Your task to perform on an android device: check out phone information Image 0: 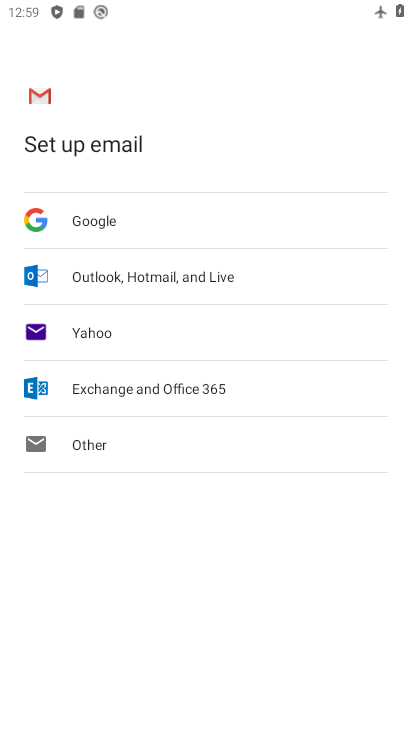
Step 0: press home button
Your task to perform on an android device: check out phone information Image 1: 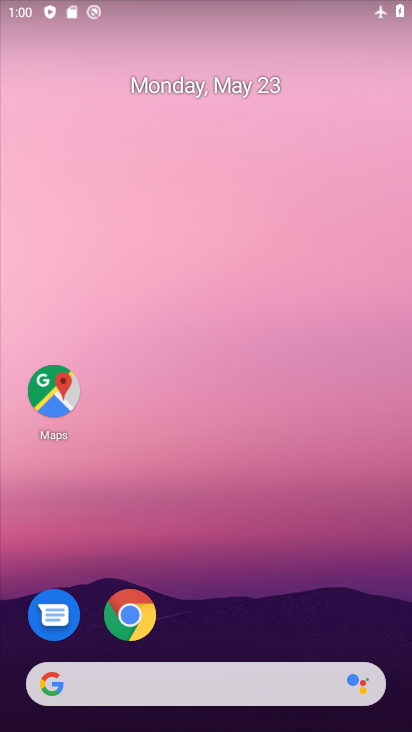
Step 1: drag from (223, 655) to (169, 60)
Your task to perform on an android device: check out phone information Image 2: 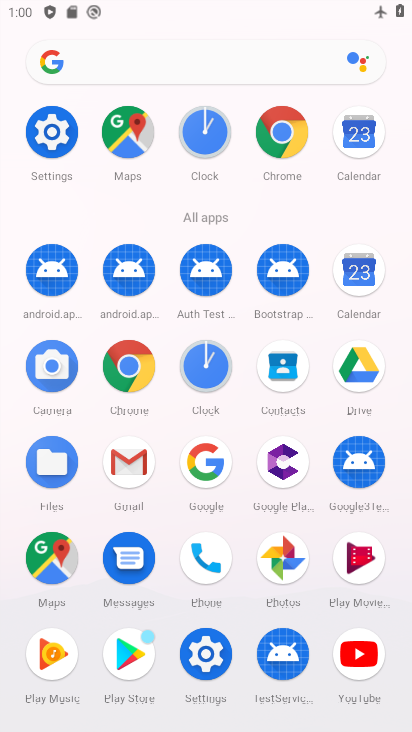
Step 2: click (57, 131)
Your task to perform on an android device: check out phone information Image 3: 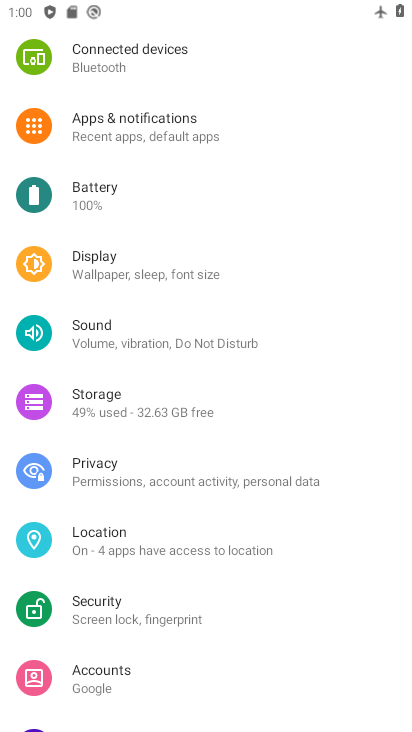
Step 3: task complete